Your task to perform on an android device: Do I have any events today? Image 0: 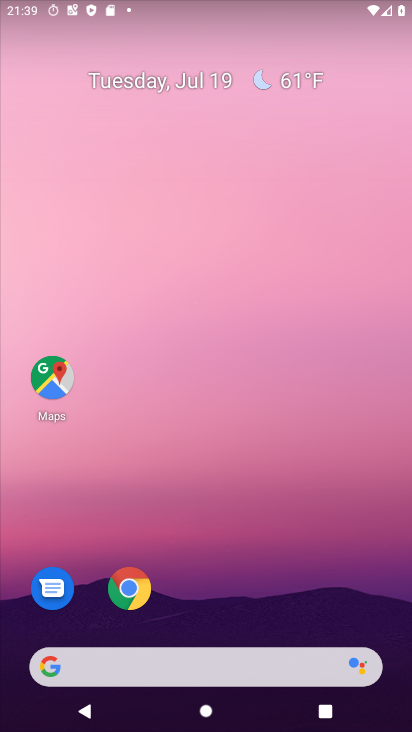
Step 0: press home button
Your task to perform on an android device: Do I have any events today? Image 1: 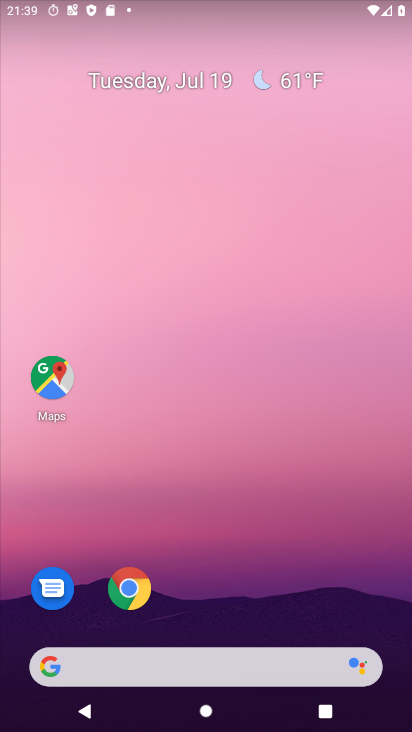
Step 1: drag from (209, 622) to (219, 26)
Your task to perform on an android device: Do I have any events today? Image 2: 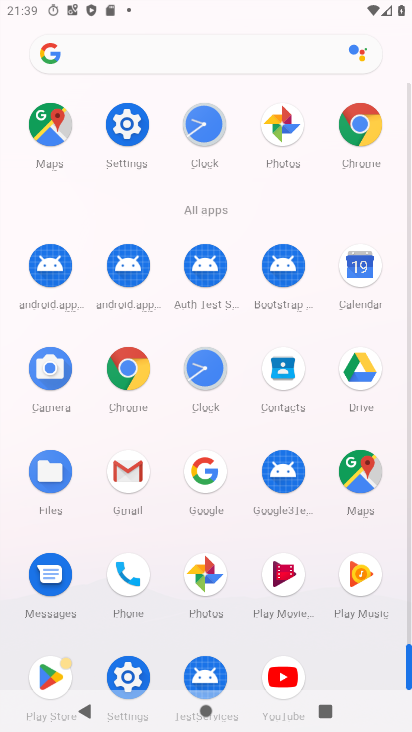
Step 2: click (355, 262)
Your task to perform on an android device: Do I have any events today? Image 3: 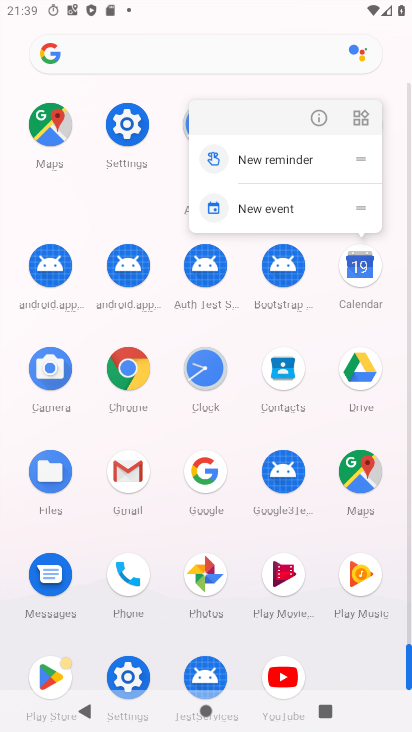
Step 3: click (357, 267)
Your task to perform on an android device: Do I have any events today? Image 4: 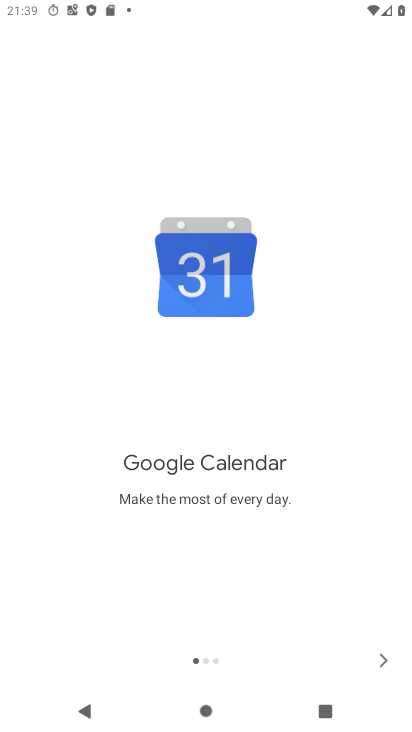
Step 4: click (378, 653)
Your task to perform on an android device: Do I have any events today? Image 5: 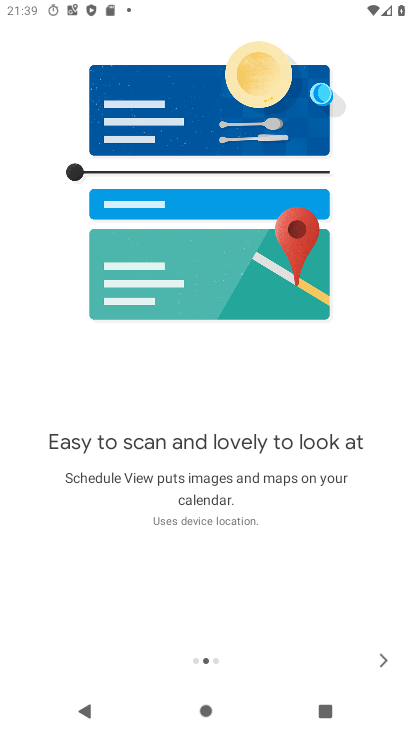
Step 5: click (377, 655)
Your task to perform on an android device: Do I have any events today? Image 6: 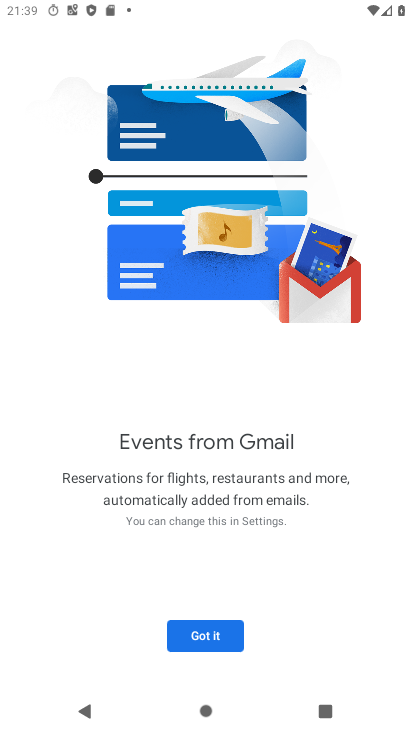
Step 6: click (208, 633)
Your task to perform on an android device: Do I have any events today? Image 7: 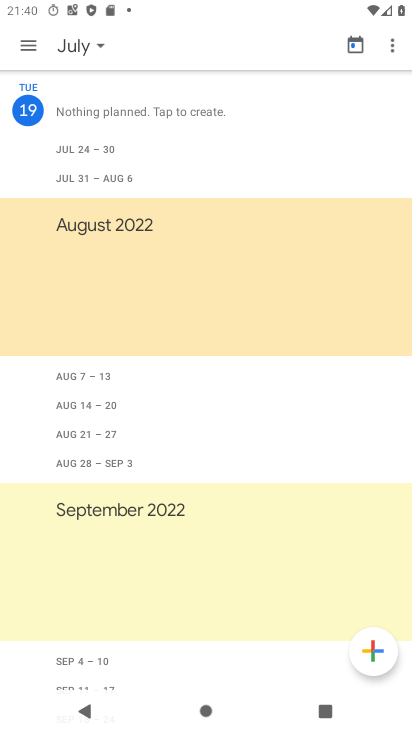
Step 7: click (25, 99)
Your task to perform on an android device: Do I have any events today? Image 8: 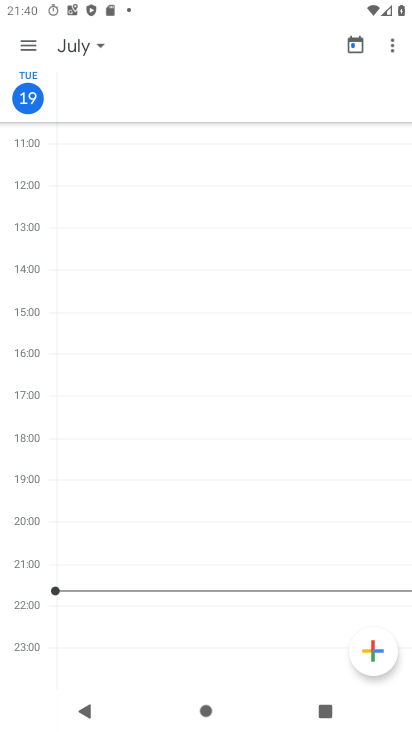
Step 8: task complete